Your task to perform on an android device: check the backup settings in the google photos Image 0: 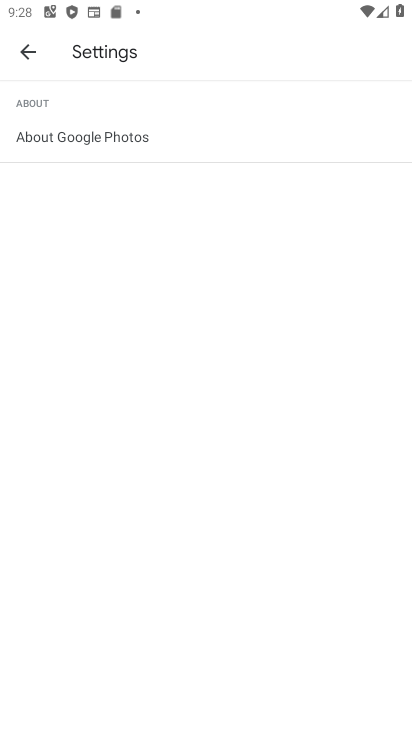
Step 0: press home button
Your task to perform on an android device: check the backup settings in the google photos Image 1: 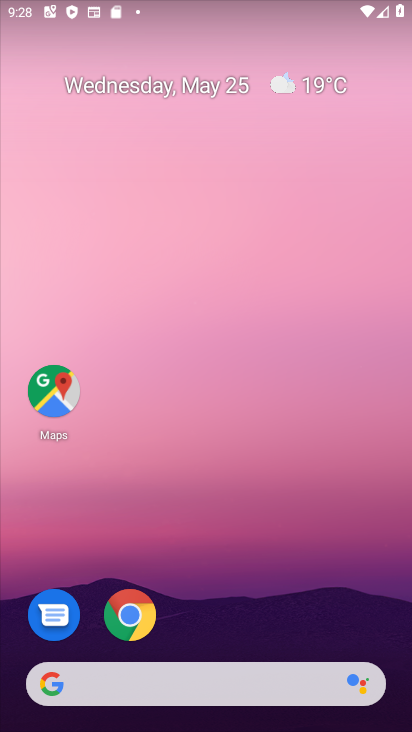
Step 1: drag from (243, 689) to (282, 90)
Your task to perform on an android device: check the backup settings in the google photos Image 2: 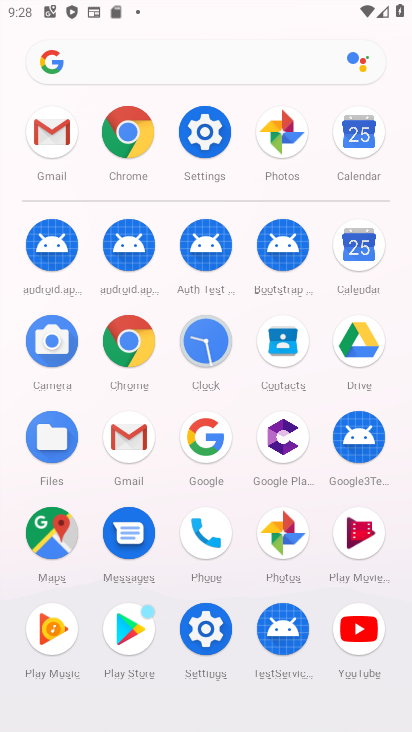
Step 2: click (289, 521)
Your task to perform on an android device: check the backup settings in the google photos Image 3: 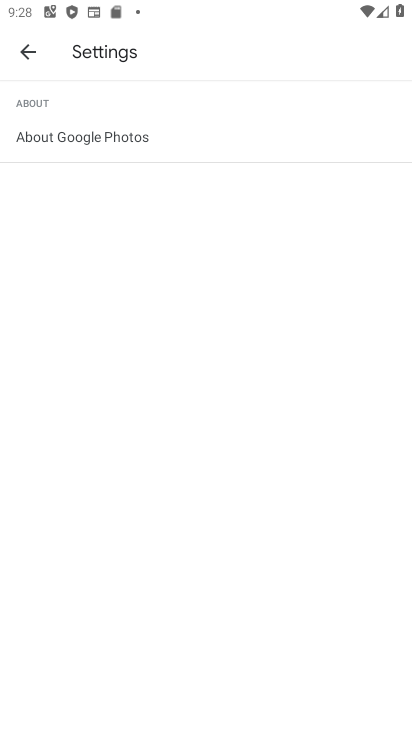
Step 3: click (23, 46)
Your task to perform on an android device: check the backup settings in the google photos Image 4: 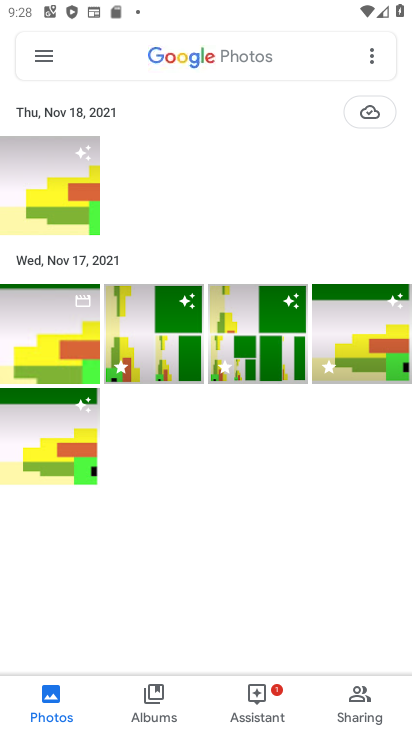
Step 4: click (38, 46)
Your task to perform on an android device: check the backup settings in the google photos Image 5: 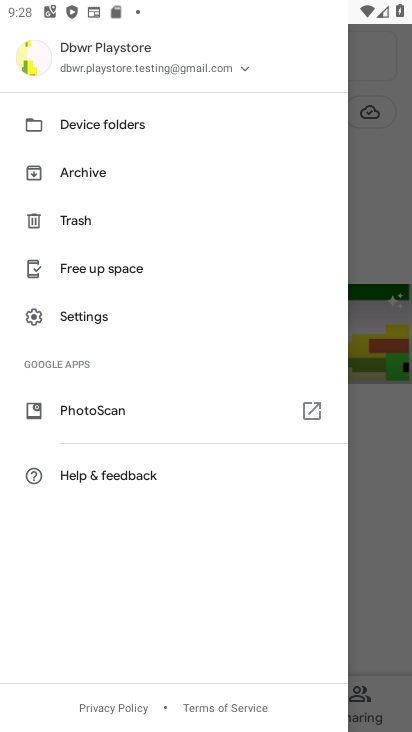
Step 5: click (96, 319)
Your task to perform on an android device: check the backup settings in the google photos Image 6: 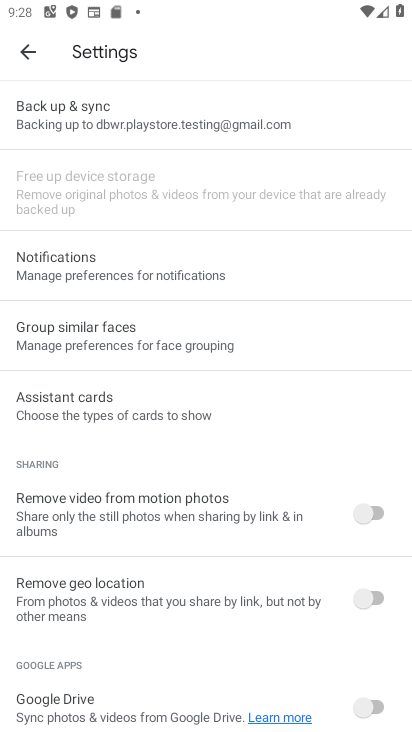
Step 6: click (96, 100)
Your task to perform on an android device: check the backup settings in the google photos Image 7: 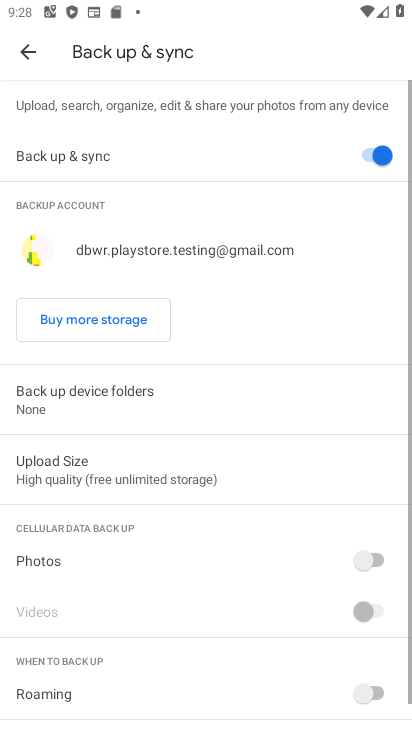
Step 7: task complete